Your task to perform on an android device: toggle sleep mode Image 0: 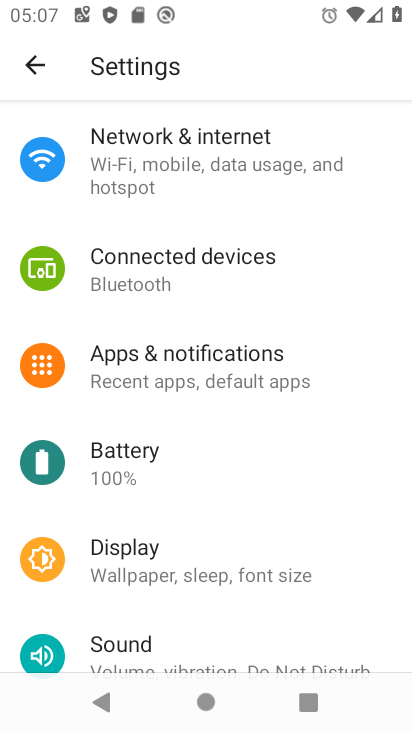
Step 0: click (172, 568)
Your task to perform on an android device: toggle sleep mode Image 1: 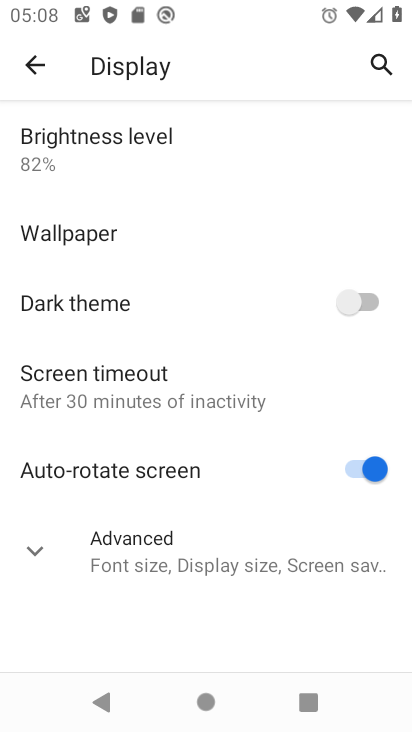
Step 1: click (42, 558)
Your task to perform on an android device: toggle sleep mode Image 2: 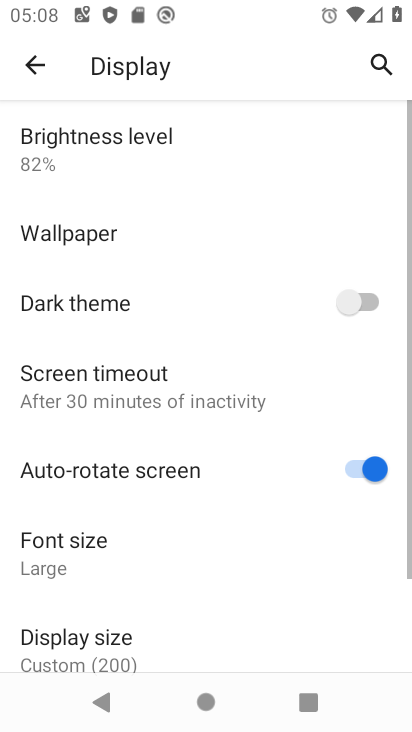
Step 2: click (100, 393)
Your task to perform on an android device: toggle sleep mode Image 3: 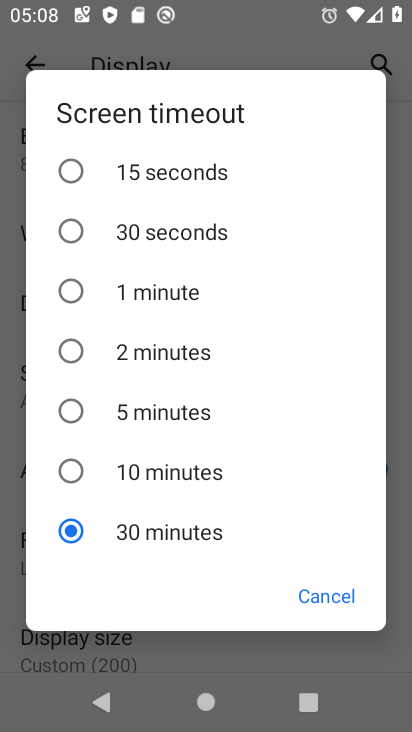
Step 3: click (59, 424)
Your task to perform on an android device: toggle sleep mode Image 4: 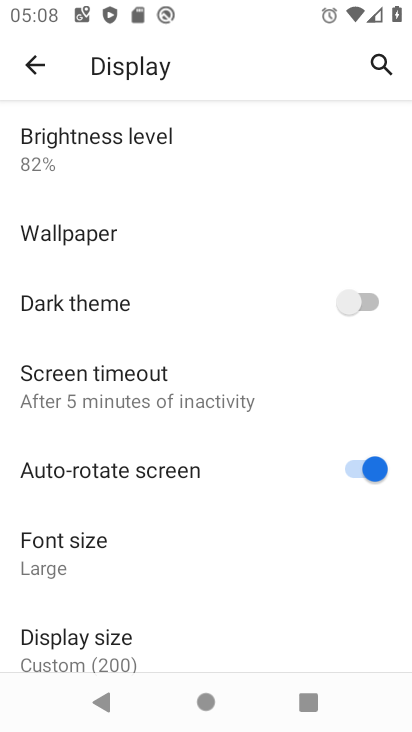
Step 4: task complete